Your task to perform on an android device: Open Yahoo.com Image 0: 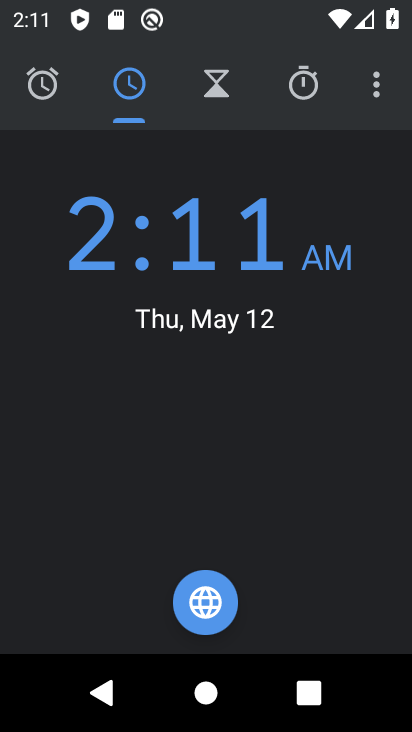
Step 0: press home button
Your task to perform on an android device: Open Yahoo.com Image 1: 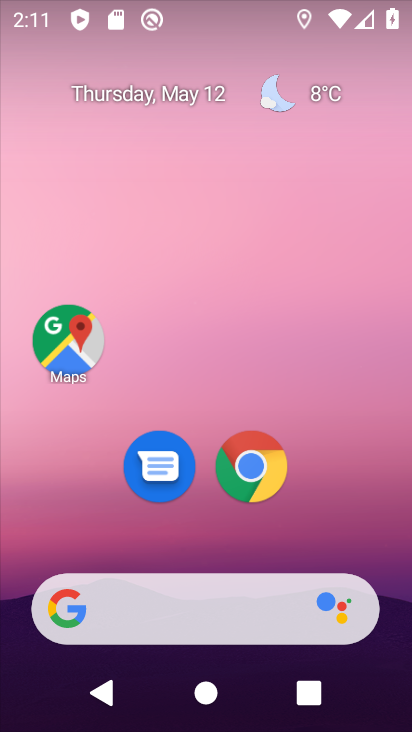
Step 1: click (256, 478)
Your task to perform on an android device: Open Yahoo.com Image 2: 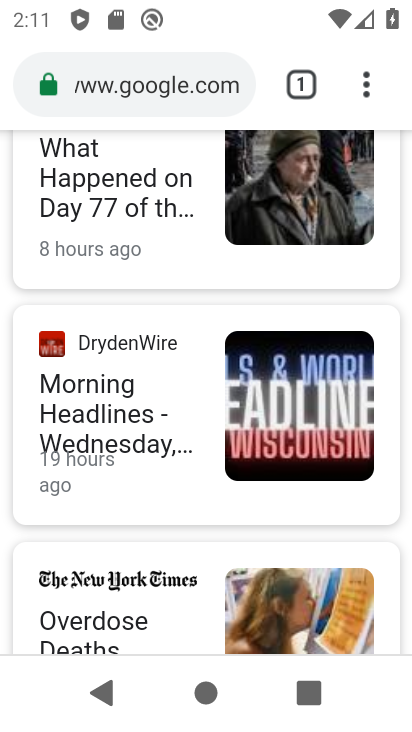
Step 2: click (304, 87)
Your task to perform on an android device: Open Yahoo.com Image 3: 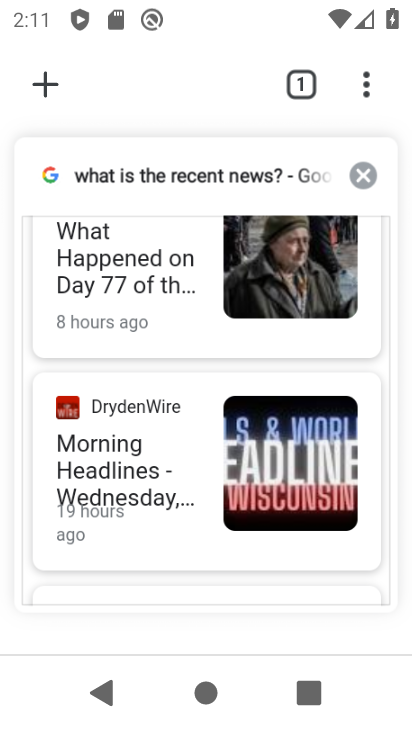
Step 3: click (48, 83)
Your task to perform on an android device: Open Yahoo.com Image 4: 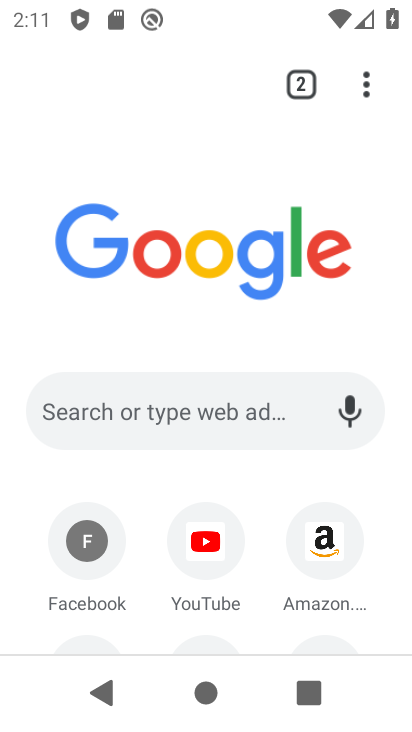
Step 4: drag from (164, 601) to (153, 315)
Your task to perform on an android device: Open Yahoo.com Image 5: 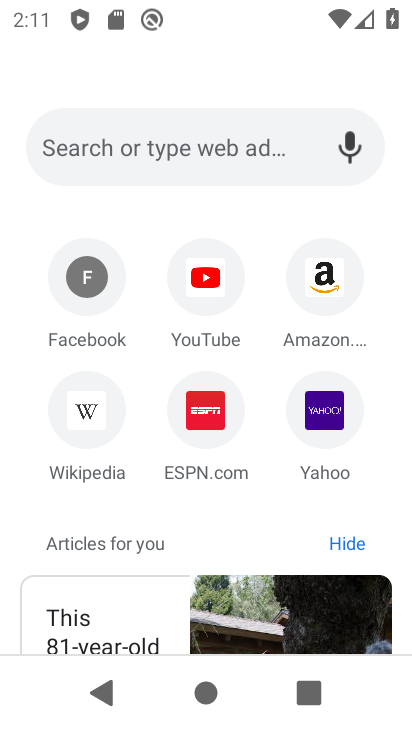
Step 5: click (317, 425)
Your task to perform on an android device: Open Yahoo.com Image 6: 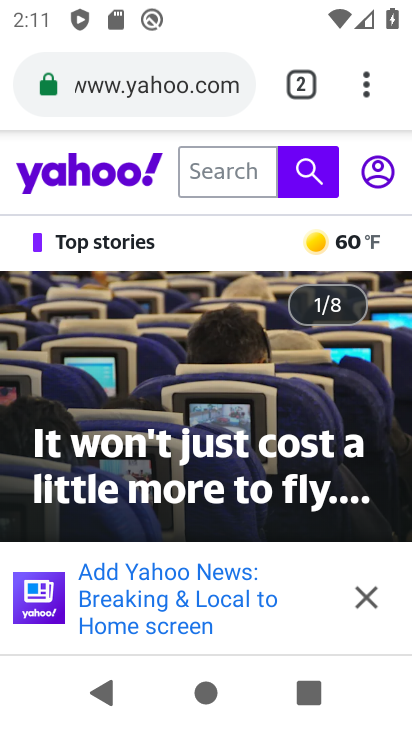
Step 6: task complete